Your task to perform on an android device: add a contact Image 0: 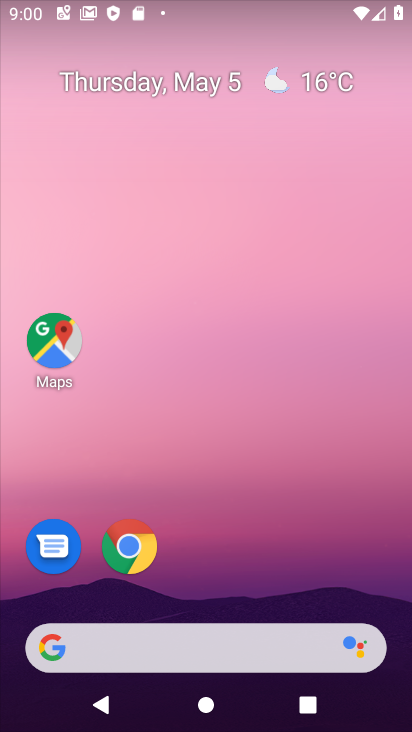
Step 0: drag from (326, 574) to (296, 52)
Your task to perform on an android device: add a contact Image 1: 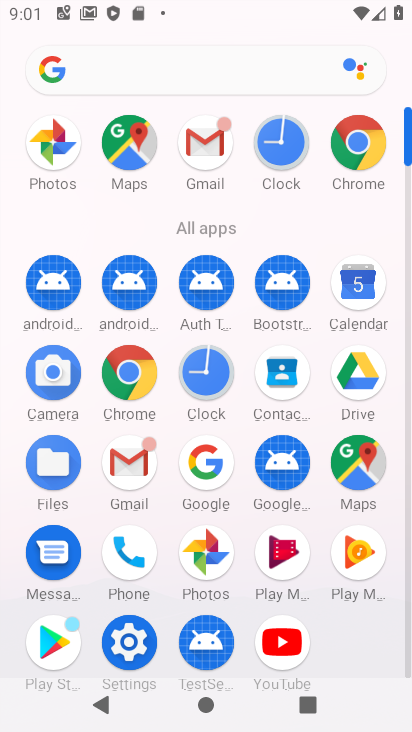
Step 1: click (275, 370)
Your task to perform on an android device: add a contact Image 2: 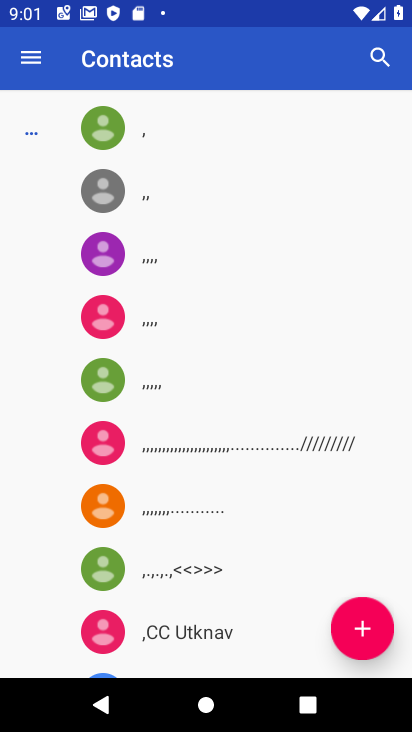
Step 2: click (360, 629)
Your task to perform on an android device: add a contact Image 3: 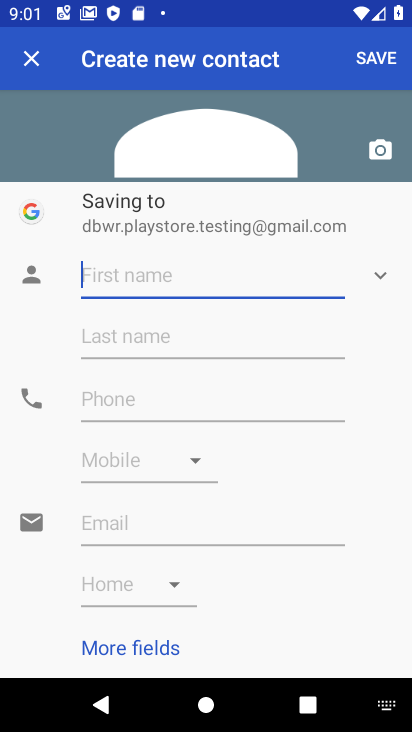
Step 3: type "yuyuyuyuyu"
Your task to perform on an android device: add a contact Image 4: 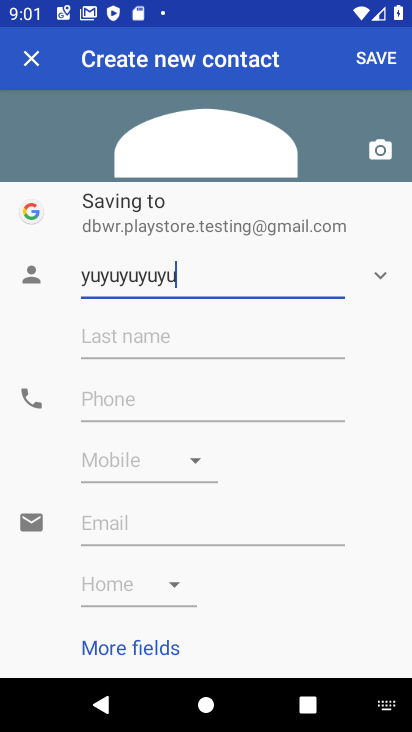
Step 4: click (160, 398)
Your task to perform on an android device: add a contact Image 5: 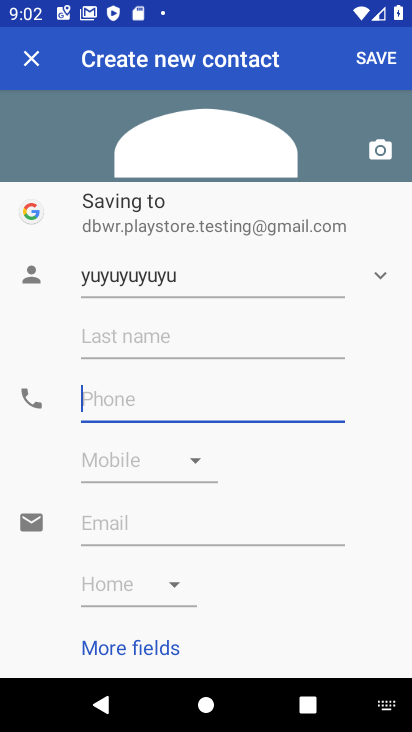
Step 5: type "6787989090"
Your task to perform on an android device: add a contact Image 6: 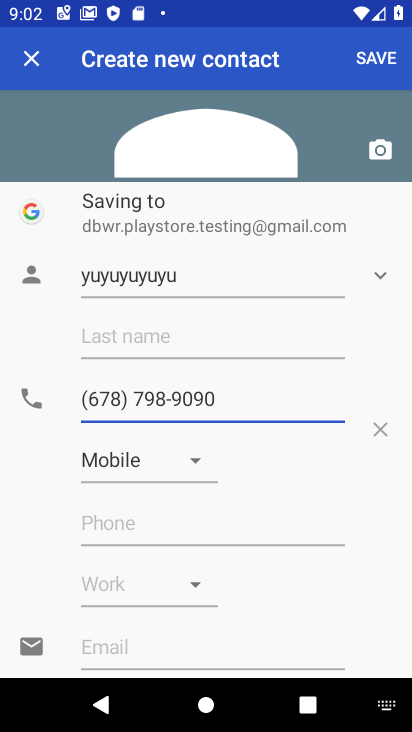
Step 6: click (359, 61)
Your task to perform on an android device: add a contact Image 7: 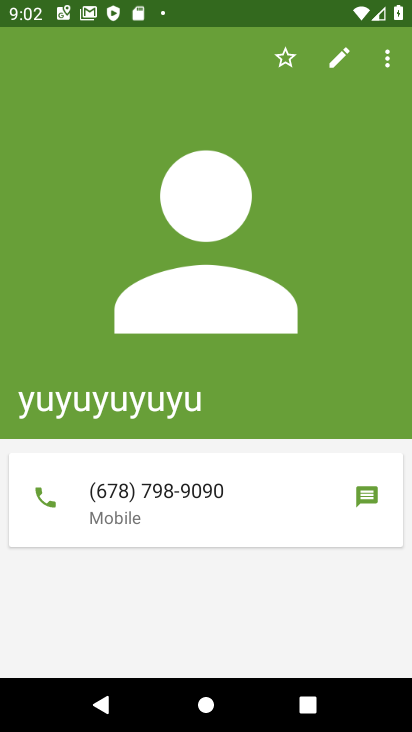
Step 7: task complete